Your task to perform on an android device: turn on sleep mode Image 0: 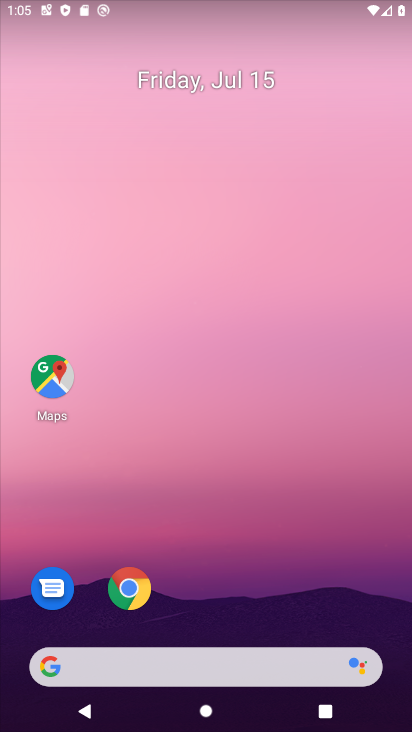
Step 0: drag from (392, 624) to (341, 114)
Your task to perform on an android device: turn on sleep mode Image 1: 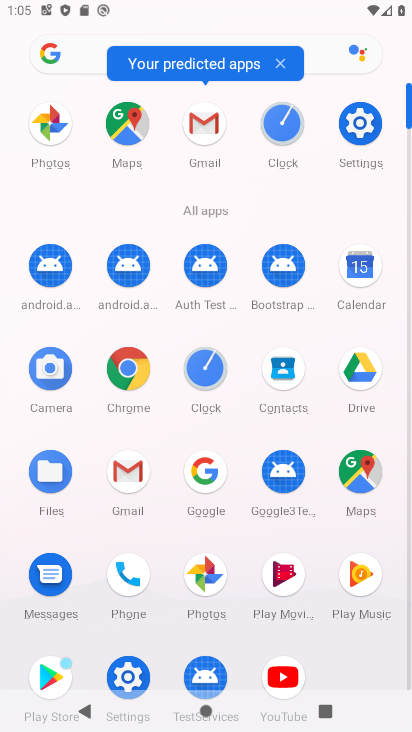
Step 1: click (128, 677)
Your task to perform on an android device: turn on sleep mode Image 2: 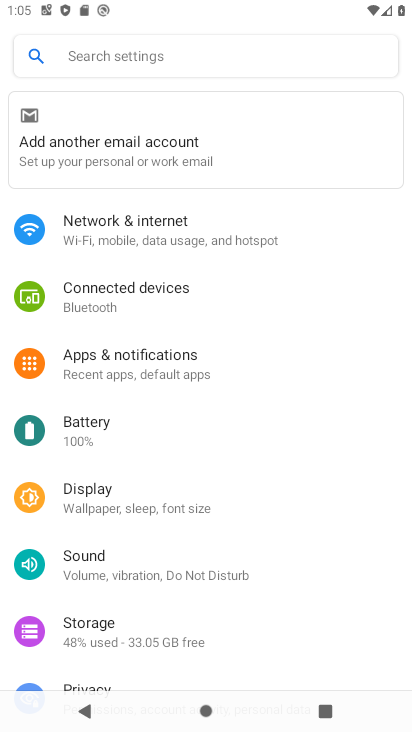
Step 2: click (107, 499)
Your task to perform on an android device: turn on sleep mode Image 3: 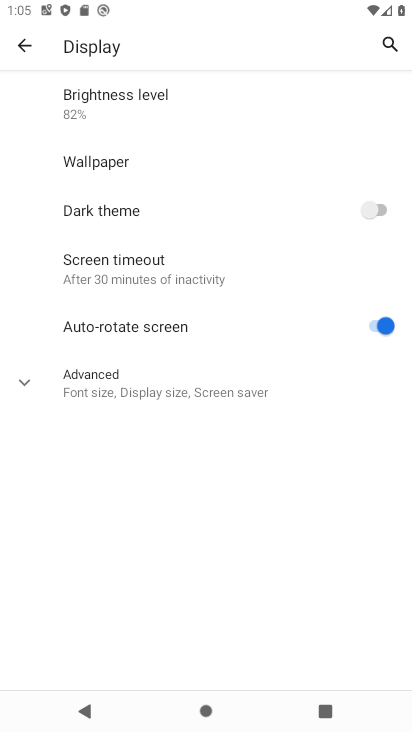
Step 3: click (32, 382)
Your task to perform on an android device: turn on sleep mode Image 4: 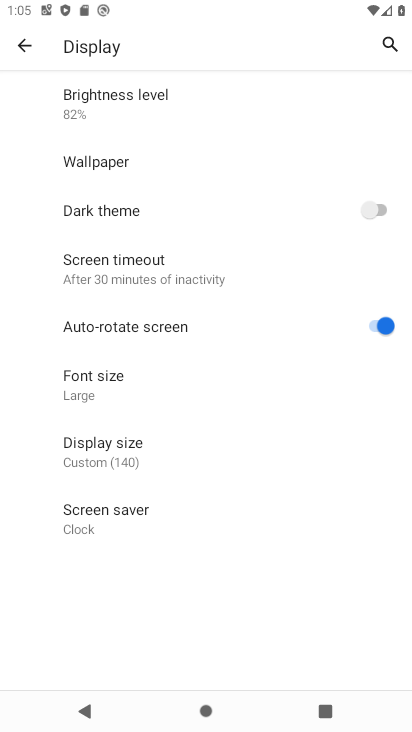
Step 4: task complete